Your task to perform on an android device: find which apps use the phone's location Image 0: 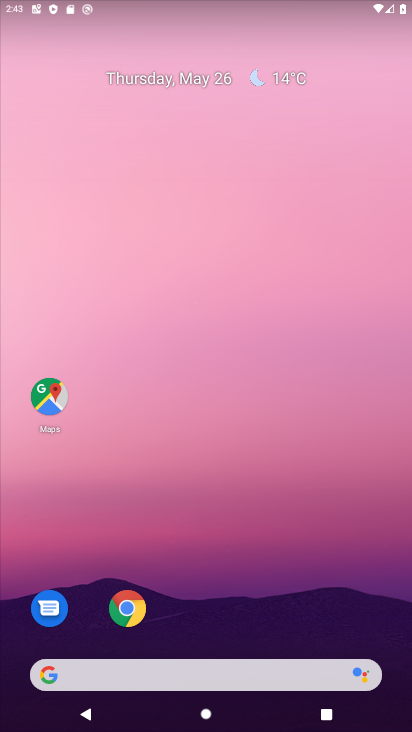
Step 0: drag from (293, 638) to (273, 56)
Your task to perform on an android device: find which apps use the phone's location Image 1: 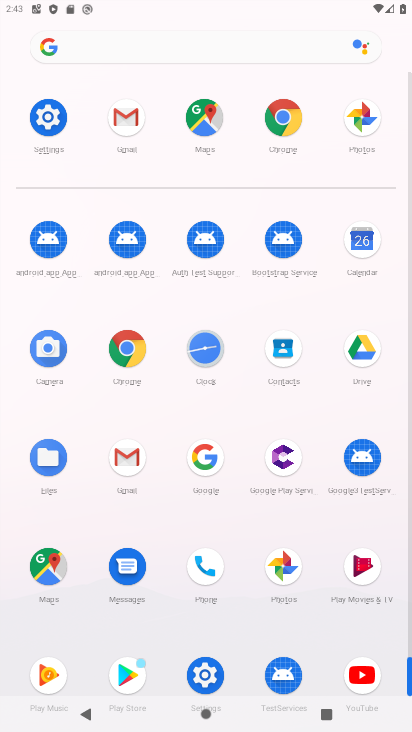
Step 1: click (32, 130)
Your task to perform on an android device: find which apps use the phone's location Image 2: 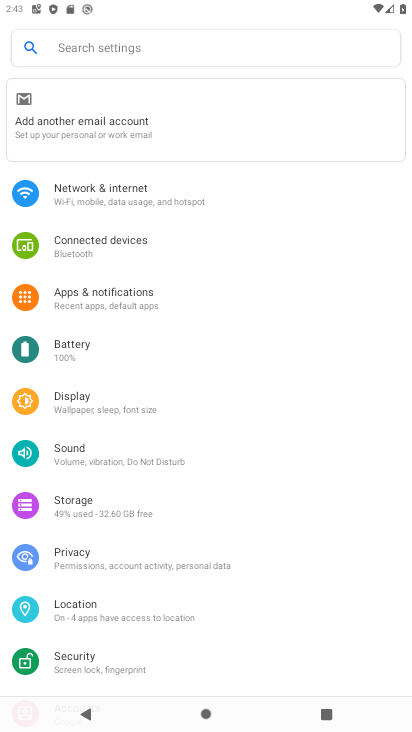
Step 2: click (123, 613)
Your task to perform on an android device: find which apps use the phone's location Image 3: 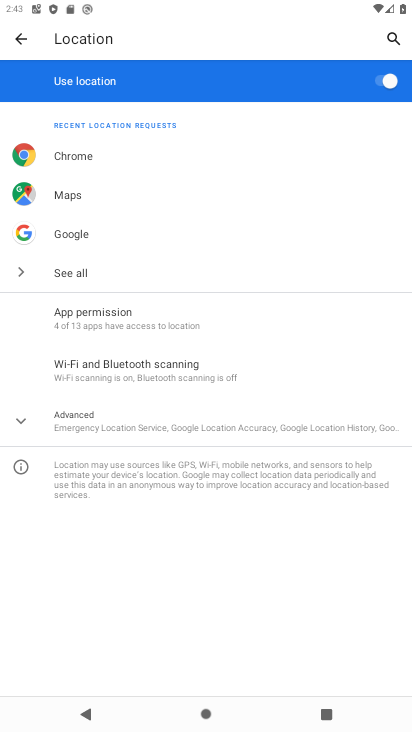
Step 3: click (120, 425)
Your task to perform on an android device: find which apps use the phone's location Image 4: 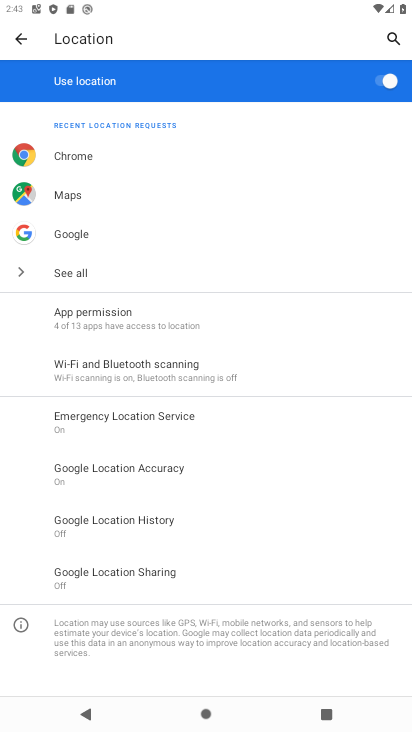
Step 4: click (104, 319)
Your task to perform on an android device: find which apps use the phone's location Image 5: 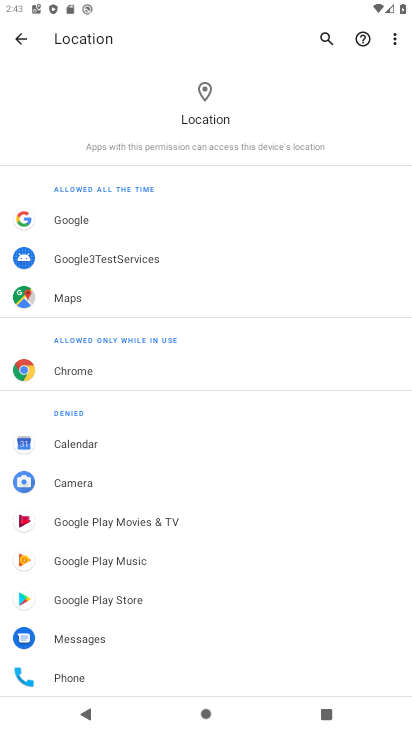
Step 5: task complete